Your task to perform on an android device: empty trash in the gmail app Image 0: 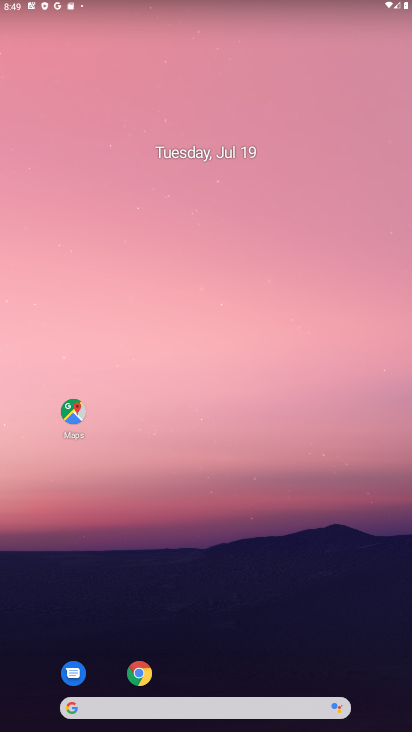
Step 0: drag from (219, 656) to (159, 15)
Your task to perform on an android device: empty trash in the gmail app Image 1: 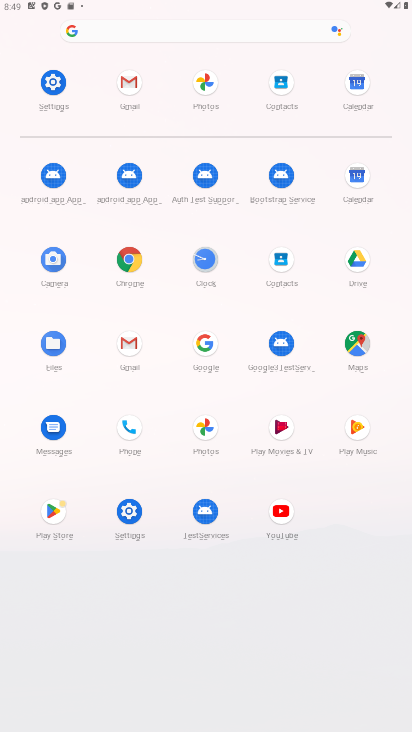
Step 1: click (135, 93)
Your task to perform on an android device: empty trash in the gmail app Image 2: 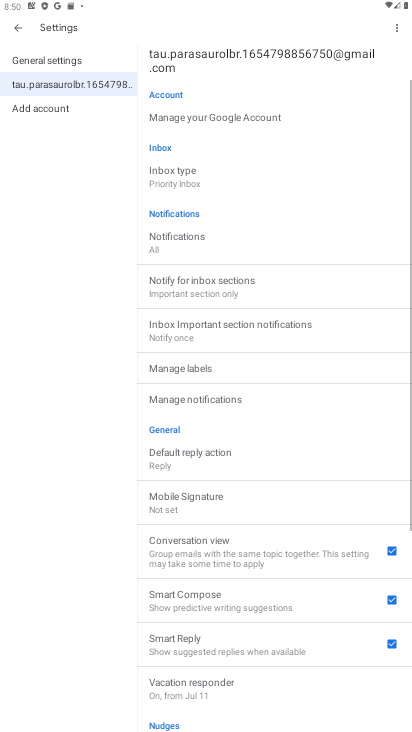
Step 2: task complete